Your task to perform on an android device: Is it going to rain today? Image 0: 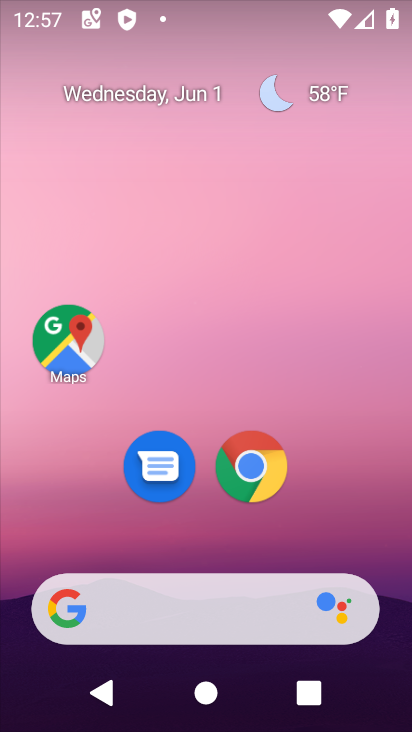
Step 0: click (236, 616)
Your task to perform on an android device: Is it going to rain today? Image 1: 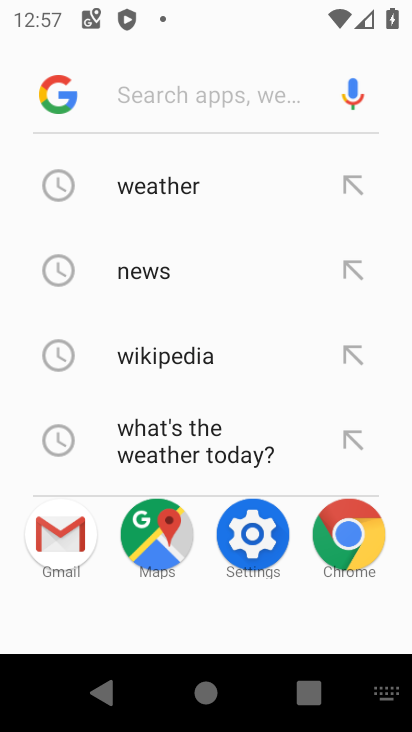
Step 1: type "Is it going to rain today?"
Your task to perform on an android device: Is it going to rain today? Image 2: 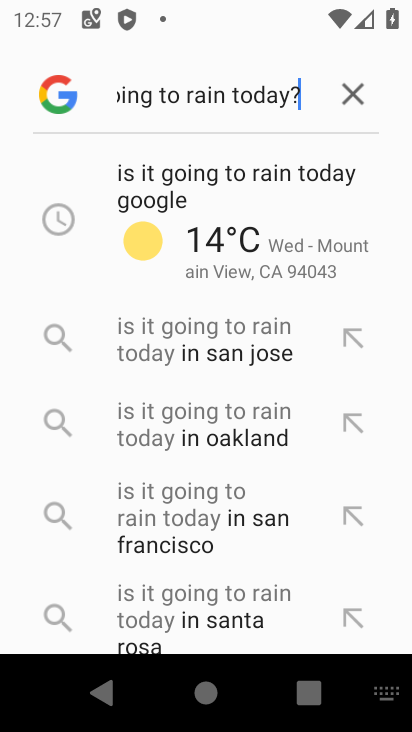
Step 2: click (316, 183)
Your task to perform on an android device: Is it going to rain today? Image 3: 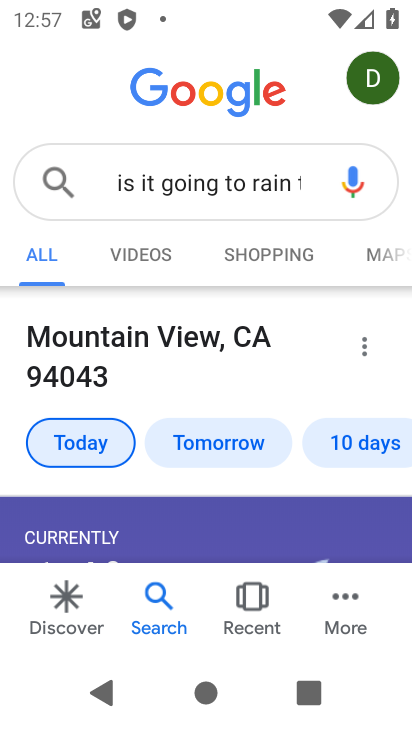
Step 3: task complete